Your task to perform on an android device: Open my contact list Image 0: 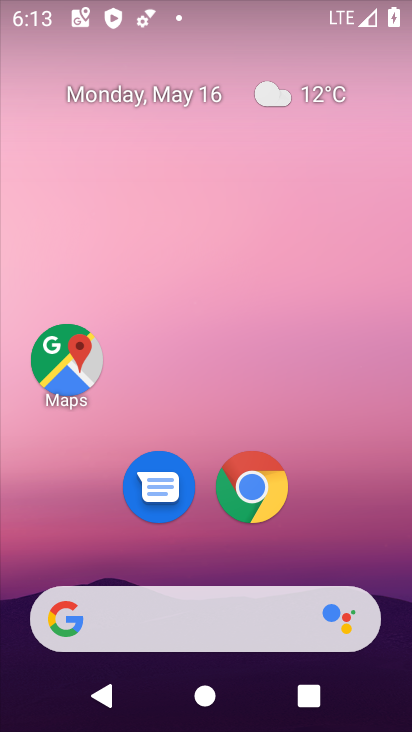
Step 0: drag from (317, 543) to (291, 165)
Your task to perform on an android device: Open my contact list Image 1: 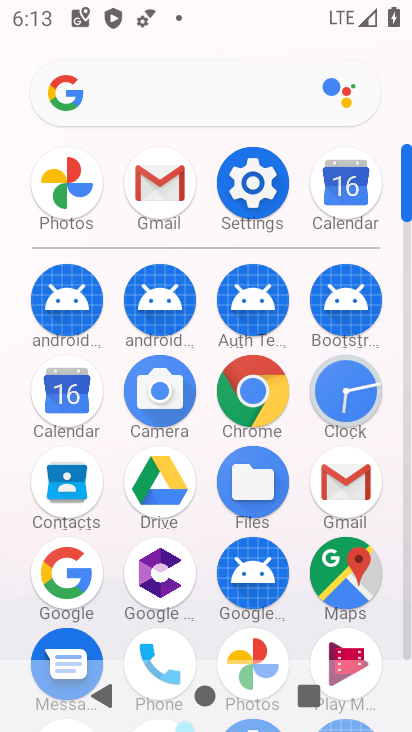
Step 1: drag from (290, 597) to (257, 526)
Your task to perform on an android device: Open my contact list Image 2: 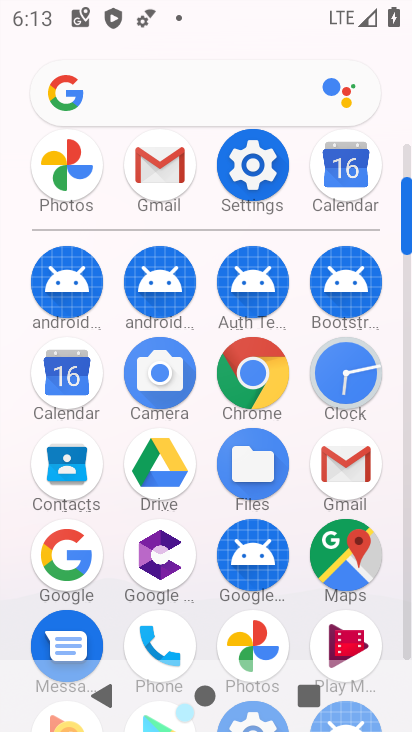
Step 2: click (50, 460)
Your task to perform on an android device: Open my contact list Image 3: 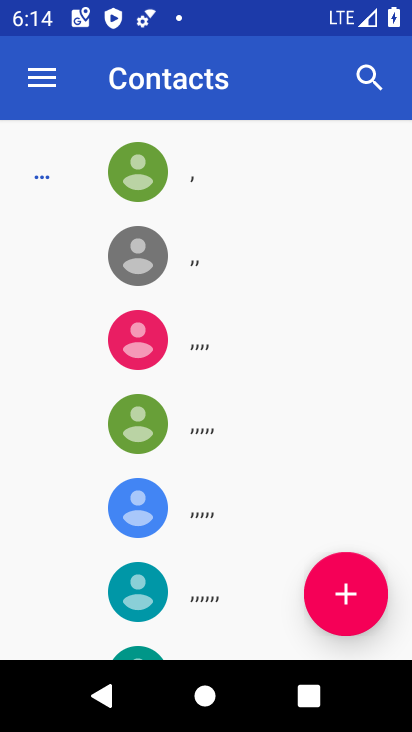
Step 3: task complete